Your task to perform on an android device: delete the emails in spam in the gmail app Image 0: 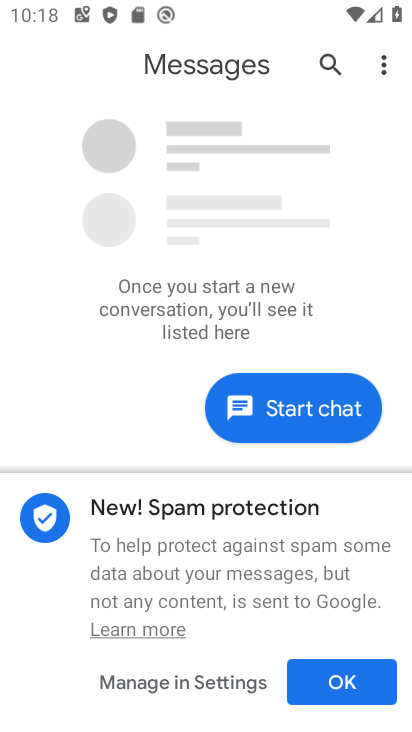
Step 0: press home button
Your task to perform on an android device: delete the emails in spam in the gmail app Image 1: 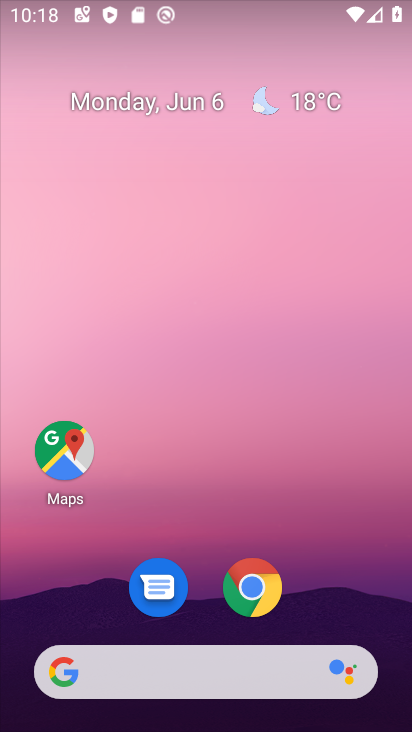
Step 1: drag from (351, 582) to (293, 128)
Your task to perform on an android device: delete the emails in spam in the gmail app Image 2: 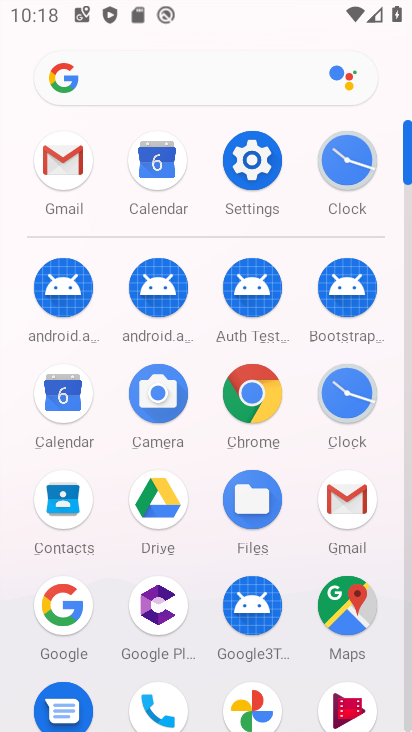
Step 2: click (65, 153)
Your task to perform on an android device: delete the emails in spam in the gmail app Image 3: 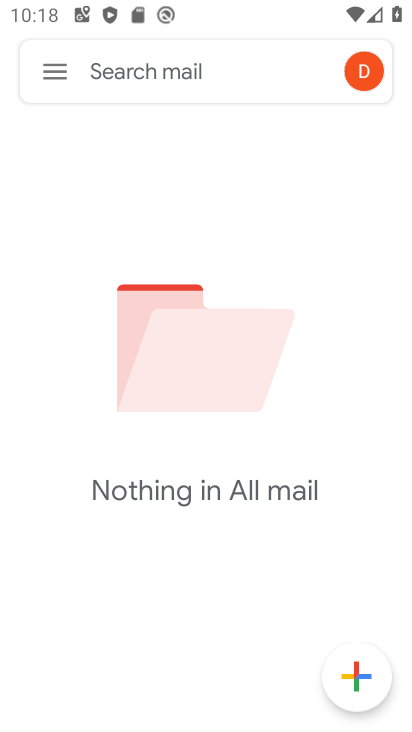
Step 3: click (56, 71)
Your task to perform on an android device: delete the emails in spam in the gmail app Image 4: 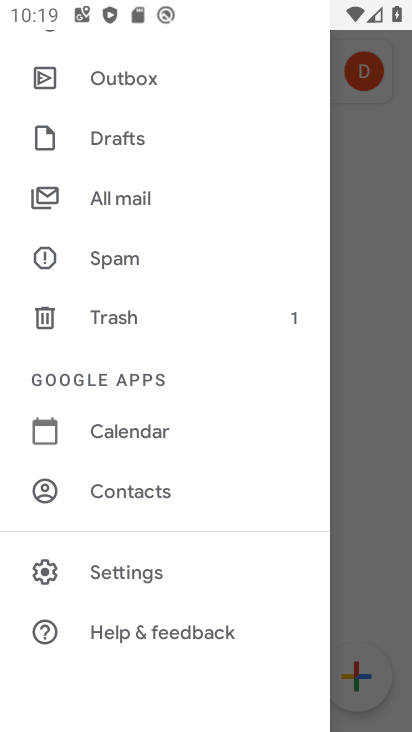
Step 4: click (126, 309)
Your task to perform on an android device: delete the emails in spam in the gmail app Image 5: 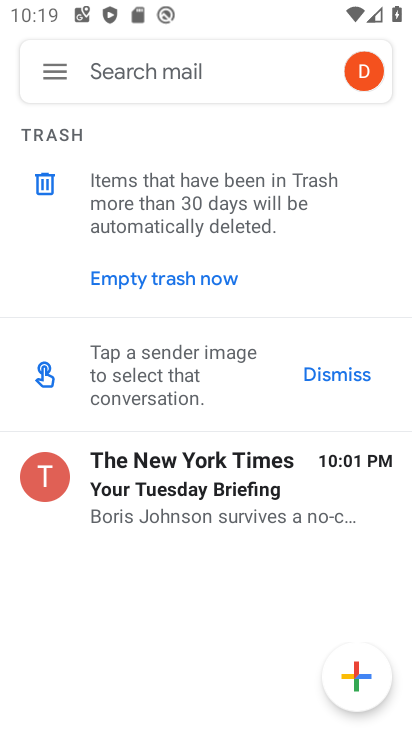
Step 5: click (60, 54)
Your task to perform on an android device: delete the emails in spam in the gmail app Image 6: 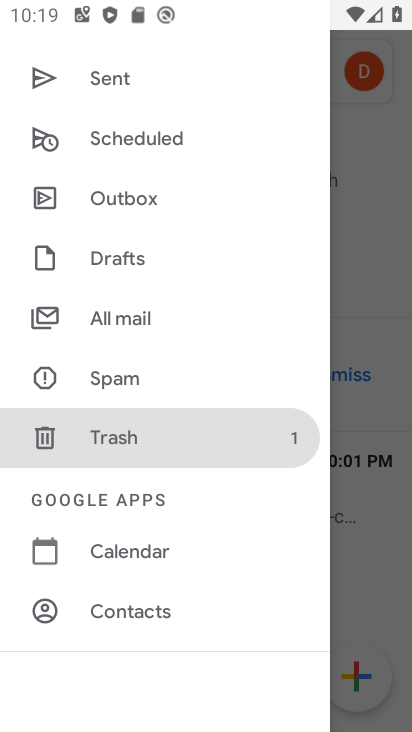
Step 6: click (48, 370)
Your task to perform on an android device: delete the emails in spam in the gmail app Image 7: 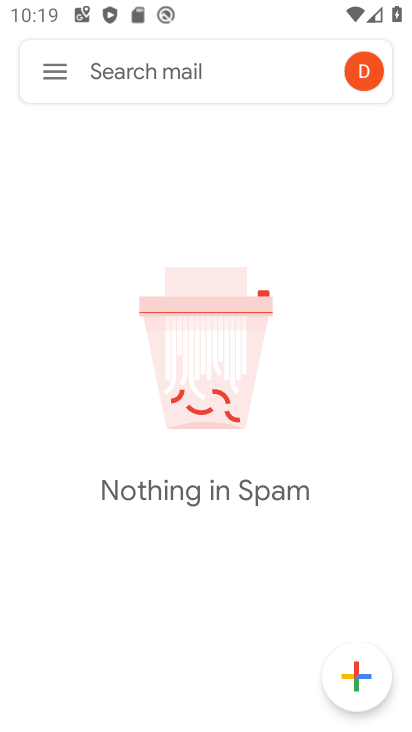
Step 7: task complete